Your task to perform on an android device: empty trash in google photos Image 0: 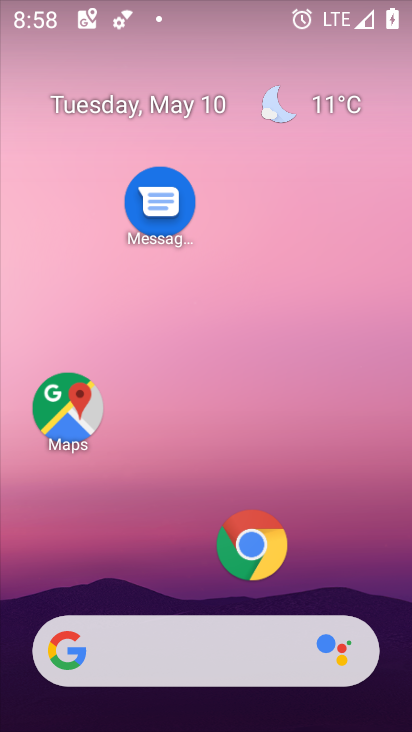
Step 0: drag from (212, 501) to (212, 79)
Your task to perform on an android device: empty trash in google photos Image 1: 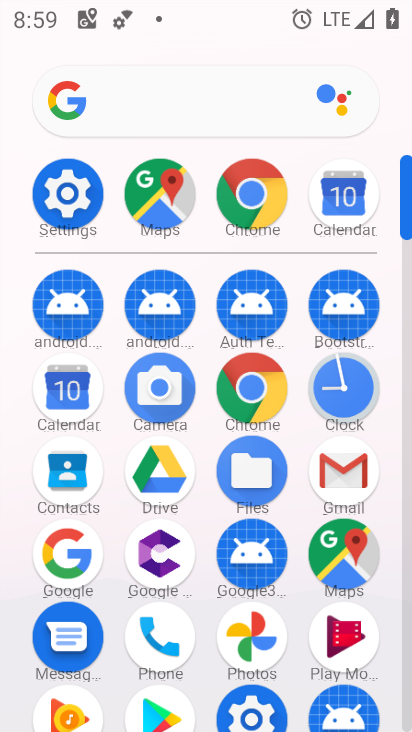
Step 1: click (254, 627)
Your task to perform on an android device: empty trash in google photos Image 2: 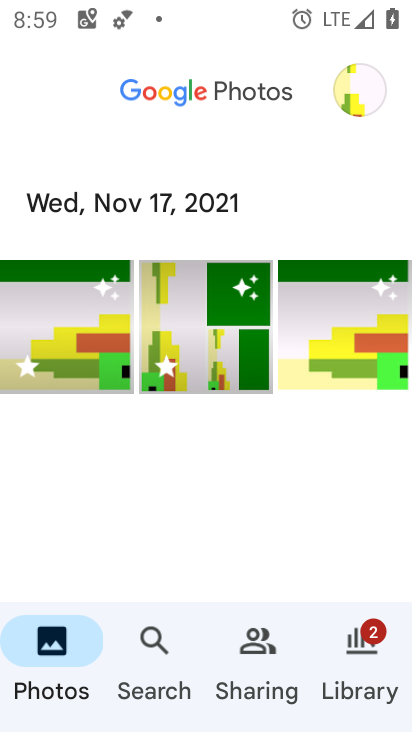
Step 2: click (358, 84)
Your task to perform on an android device: empty trash in google photos Image 3: 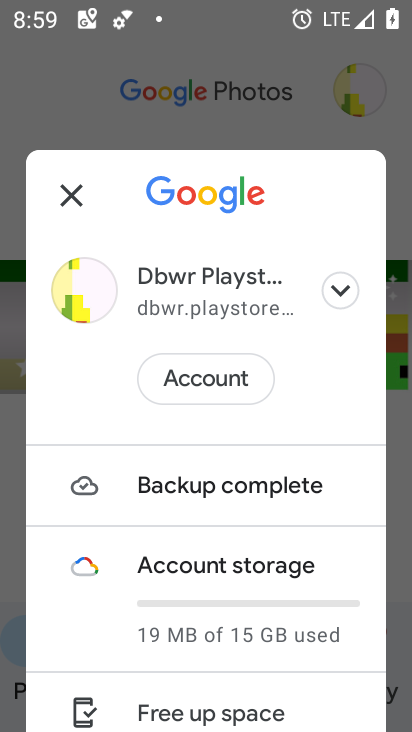
Step 3: drag from (149, 679) to (179, 171)
Your task to perform on an android device: empty trash in google photos Image 4: 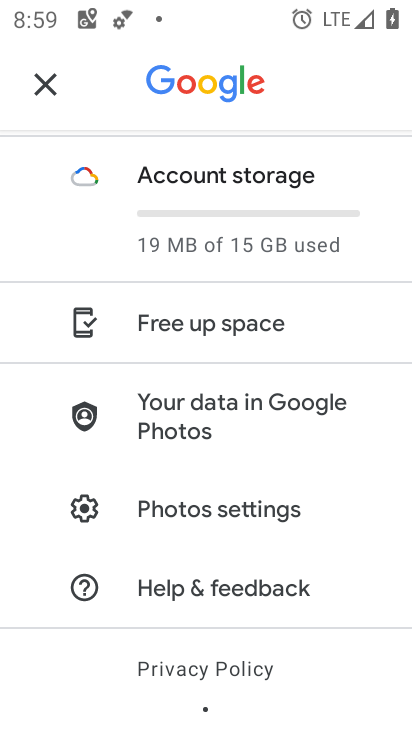
Step 4: click (46, 84)
Your task to perform on an android device: empty trash in google photos Image 5: 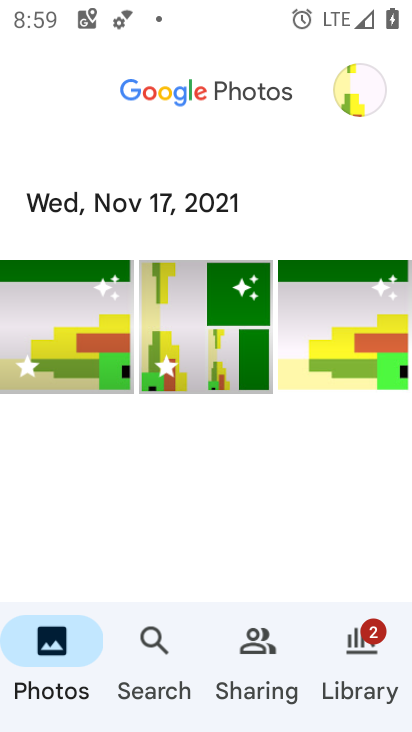
Step 5: click (154, 650)
Your task to perform on an android device: empty trash in google photos Image 6: 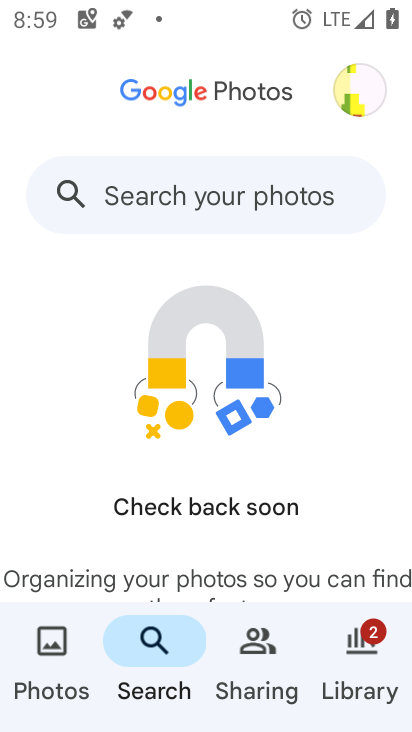
Step 6: click (170, 190)
Your task to perform on an android device: empty trash in google photos Image 7: 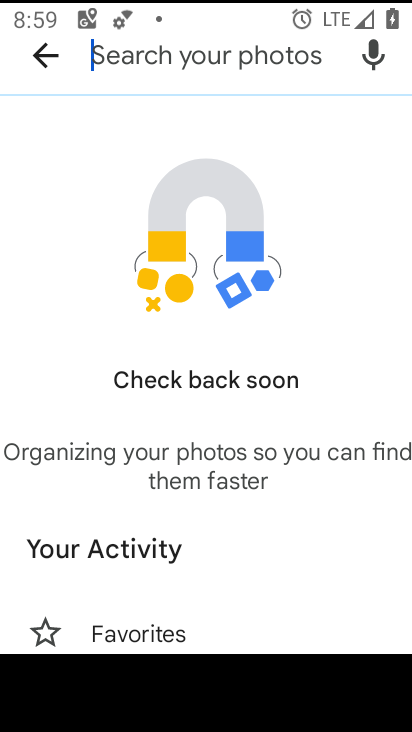
Step 7: click (134, 42)
Your task to perform on an android device: empty trash in google photos Image 8: 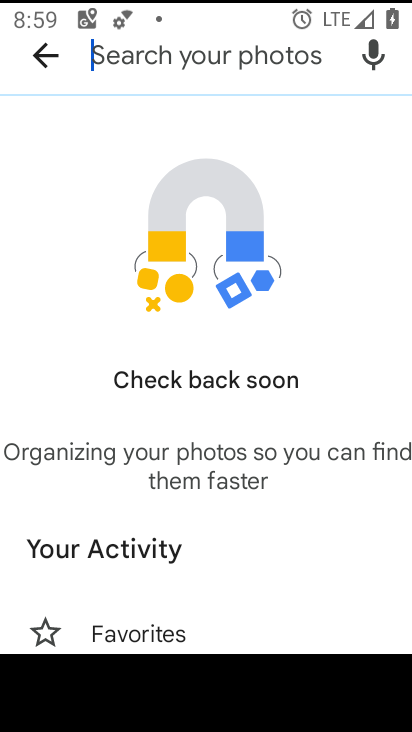
Step 8: type "trash"
Your task to perform on an android device: empty trash in google photos Image 9: 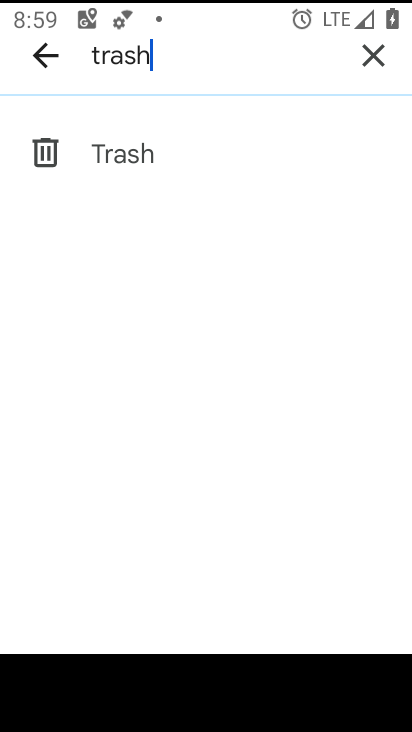
Step 9: click (159, 147)
Your task to perform on an android device: empty trash in google photos Image 10: 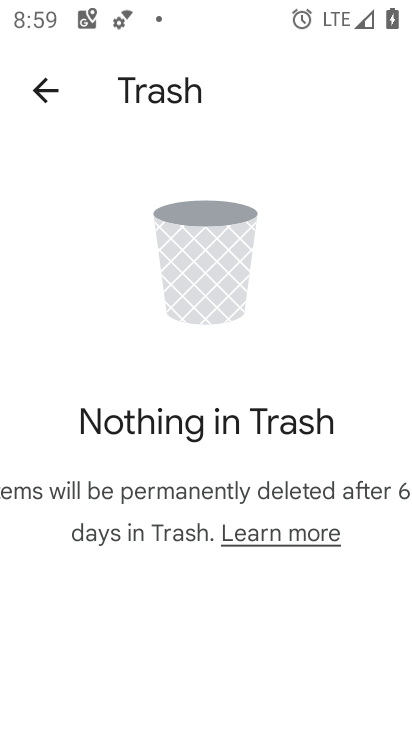
Step 10: task complete